Your task to perform on an android device: Go to eBay Image 0: 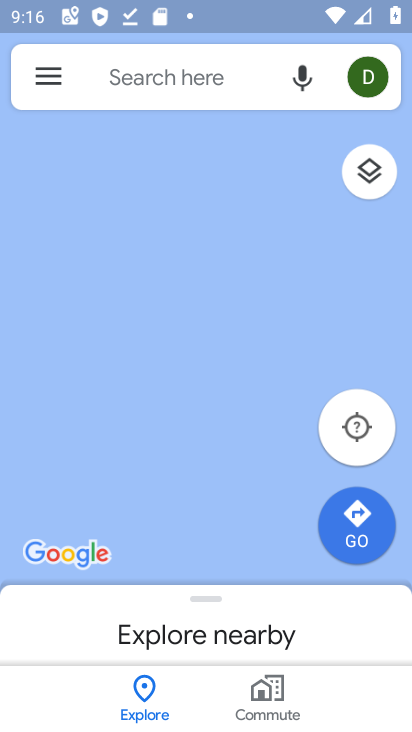
Step 0: press back button
Your task to perform on an android device: Go to eBay Image 1: 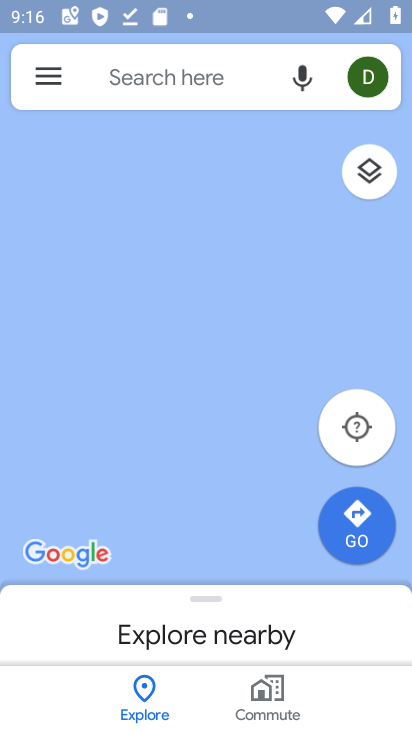
Step 1: press back button
Your task to perform on an android device: Go to eBay Image 2: 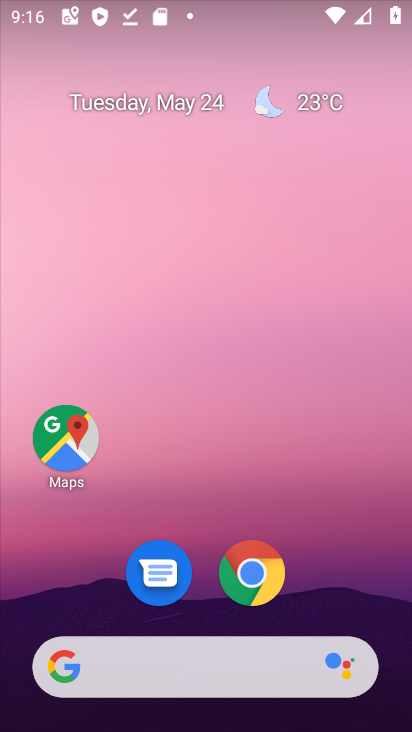
Step 2: drag from (379, 636) to (172, 86)
Your task to perform on an android device: Go to eBay Image 3: 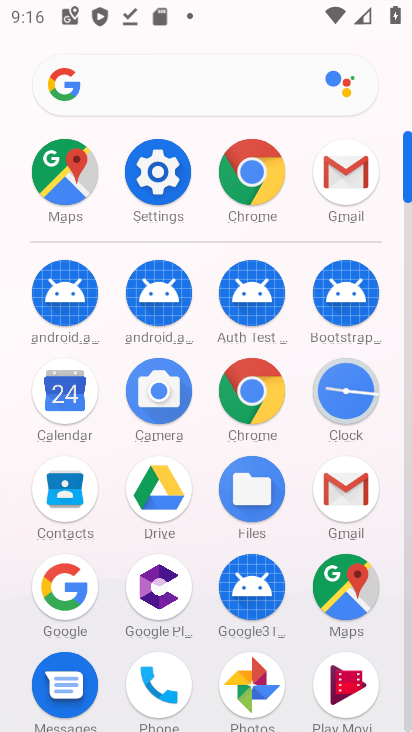
Step 3: click (236, 173)
Your task to perform on an android device: Go to eBay Image 4: 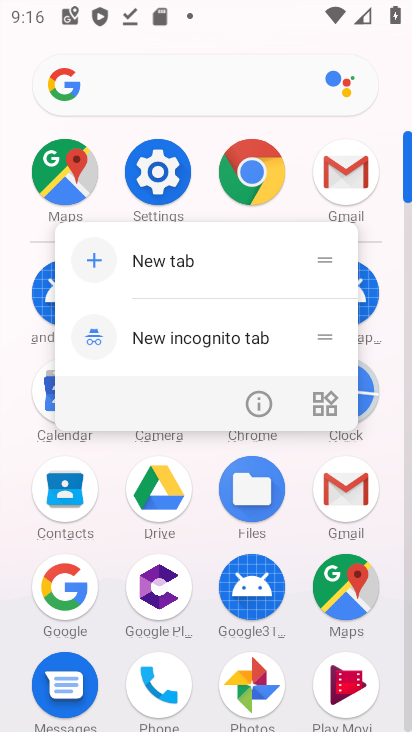
Step 4: click (236, 173)
Your task to perform on an android device: Go to eBay Image 5: 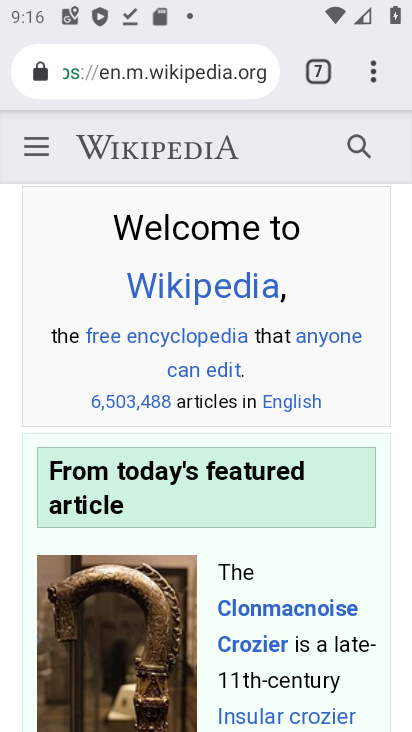
Step 5: drag from (371, 66) to (123, 145)
Your task to perform on an android device: Go to eBay Image 6: 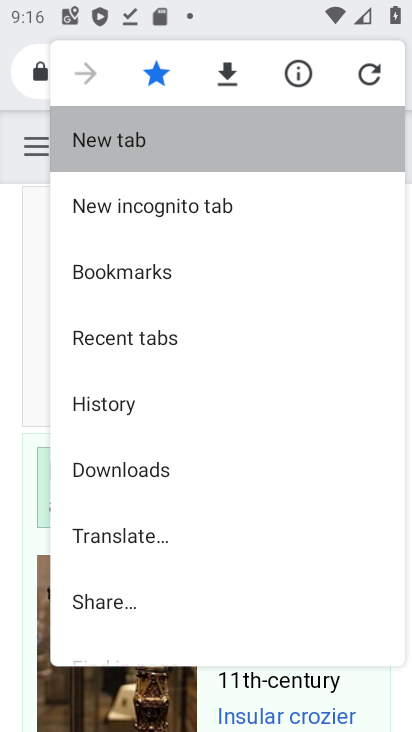
Step 6: click (130, 140)
Your task to perform on an android device: Go to eBay Image 7: 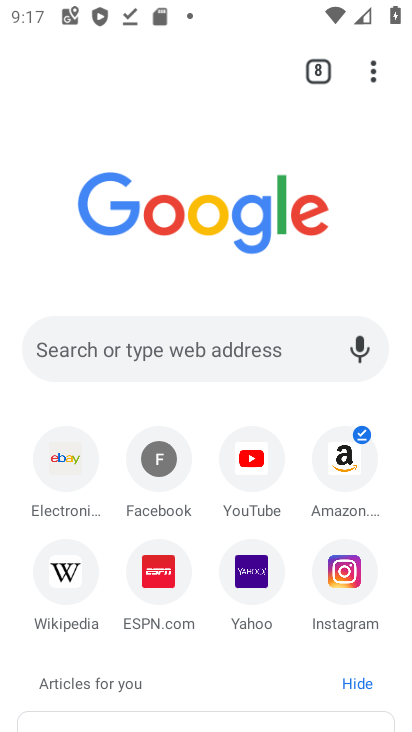
Step 7: click (69, 452)
Your task to perform on an android device: Go to eBay Image 8: 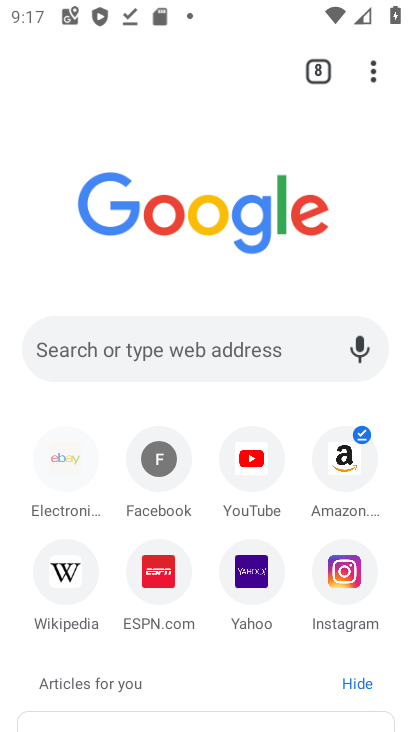
Step 8: click (69, 452)
Your task to perform on an android device: Go to eBay Image 9: 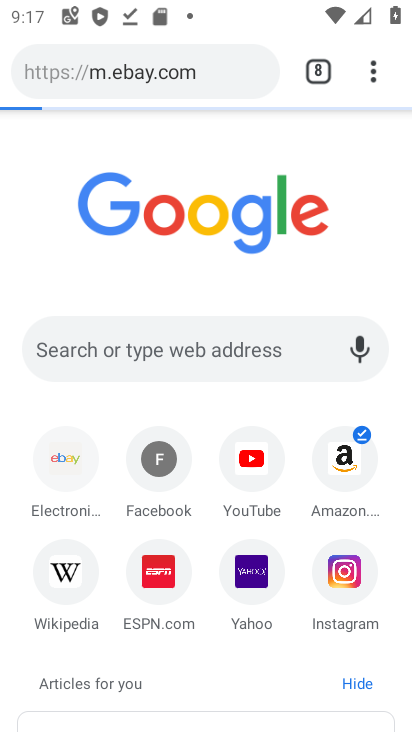
Step 9: click (69, 454)
Your task to perform on an android device: Go to eBay Image 10: 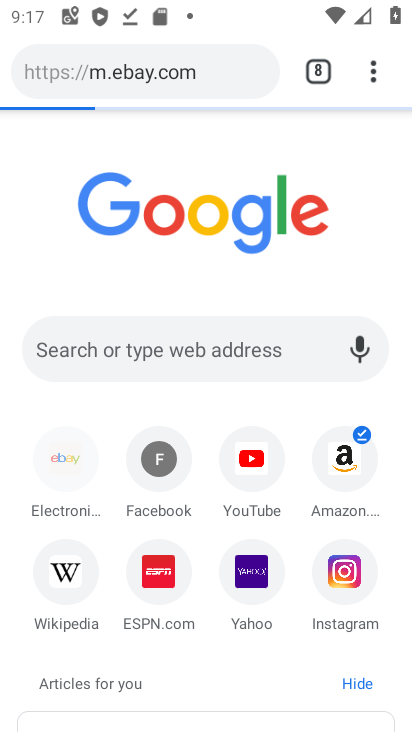
Step 10: click (71, 452)
Your task to perform on an android device: Go to eBay Image 11: 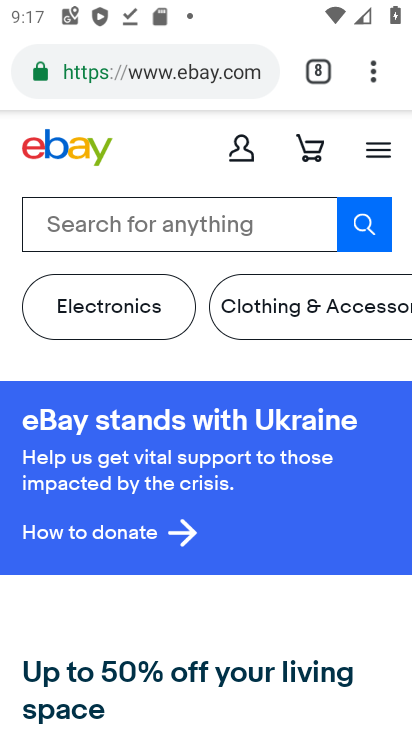
Step 11: task complete